Your task to perform on an android device: toggle wifi Image 0: 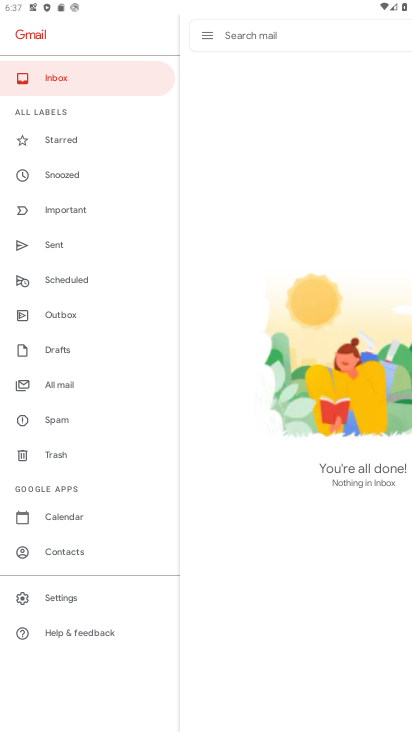
Step 0: press home button
Your task to perform on an android device: toggle wifi Image 1: 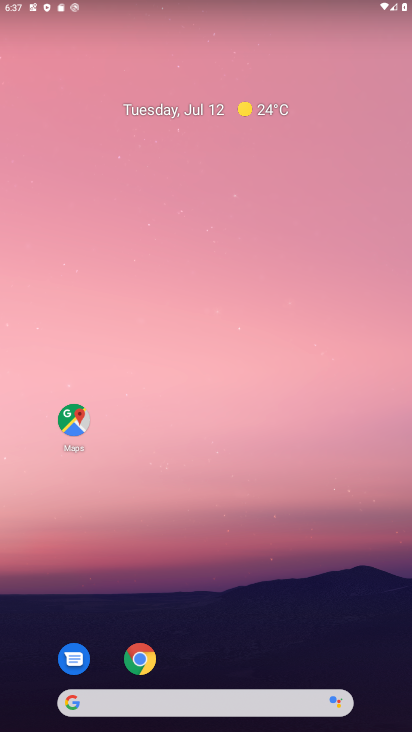
Step 1: drag from (196, 2) to (180, 698)
Your task to perform on an android device: toggle wifi Image 2: 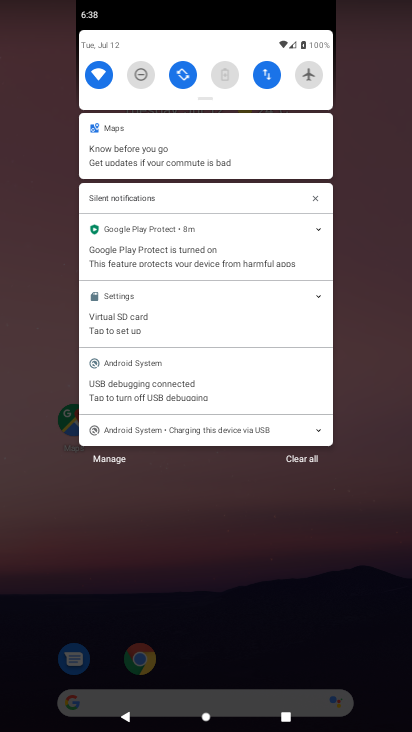
Step 2: click (89, 75)
Your task to perform on an android device: toggle wifi Image 3: 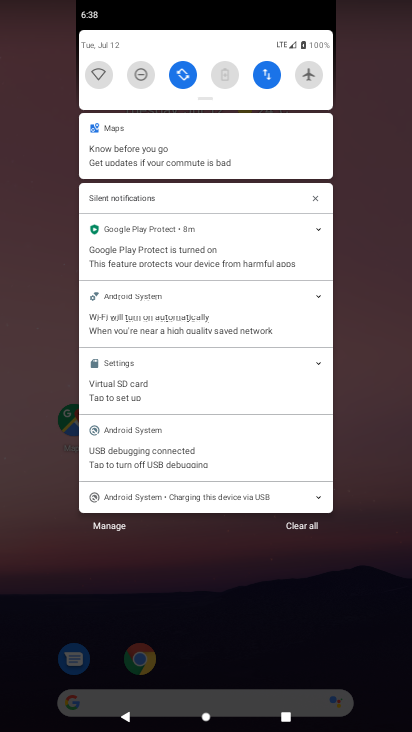
Step 3: task complete